Your task to perform on an android device: Show the shopping cart on newegg.com. Search for dell alienware on newegg.com, select the first entry, and add it to the cart. Image 0: 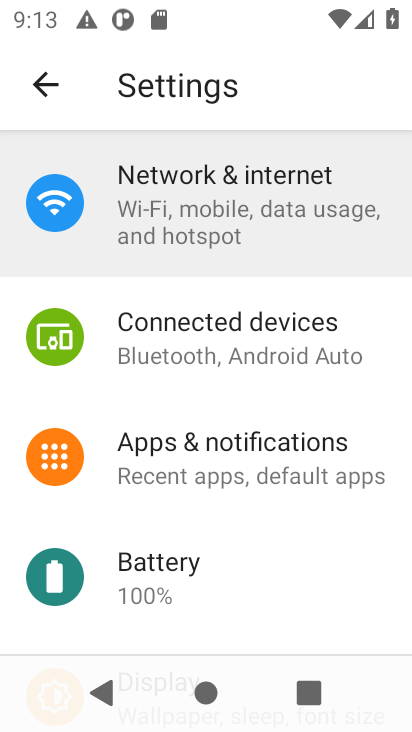
Step 0: press home button
Your task to perform on an android device: Show the shopping cart on newegg.com. Search for dell alienware on newegg.com, select the first entry, and add it to the cart. Image 1: 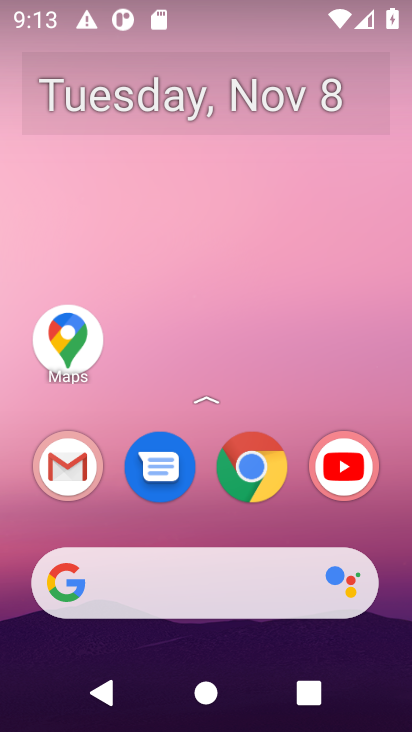
Step 1: click (133, 607)
Your task to perform on an android device: Show the shopping cart on newegg.com. Search for dell alienware on newegg.com, select the first entry, and add it to the cart. Image 2: 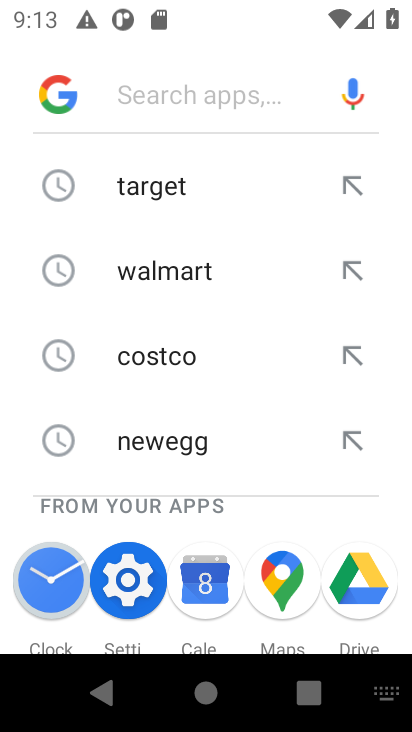
Step 2: click (249, 442)
Your task to perform on an android device: Show the shopping cart on newegg.com. Search for dell alienware on newegg.com, select the first entry, and add it to the cart. Image 3: 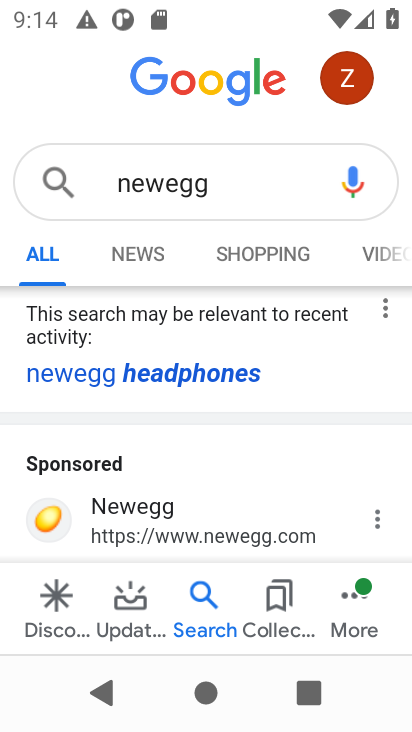
Step 3: click (156, 503)
Your task to perform on an android device: Show the shopping cart on newegg.com. Search for dell alienware on newegg.com, select the first entry, and add it to the cart. Image 4: 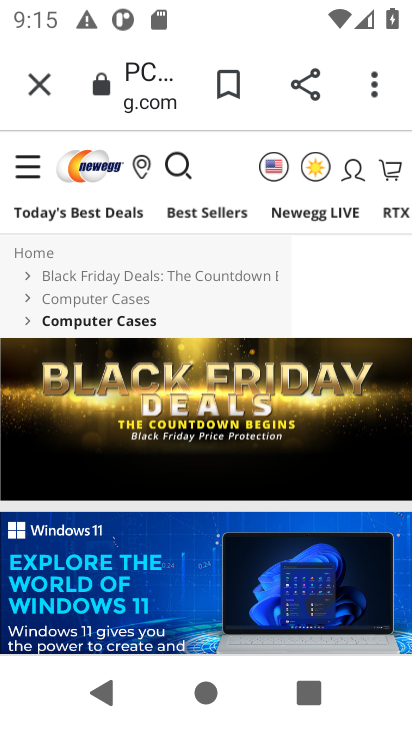
Step 4: task complete